Your task to perform on an android device: Show me the alarms in the clock app Image 0: 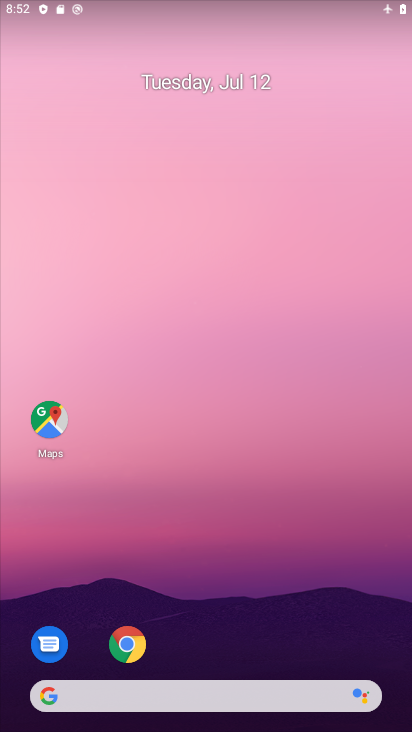
Step 0: drag from (210, 652) to (223, 334)
Your task to perform on an android device: Show me the alarms in the clock app Image 1: 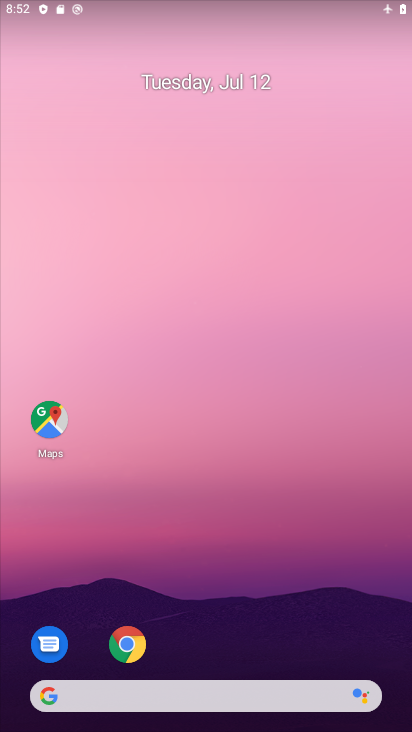
Step 1: drag from (192, 658) to (175, 210)
Your task to perform on an android device: Show me the alarms in the clock app Image 2: 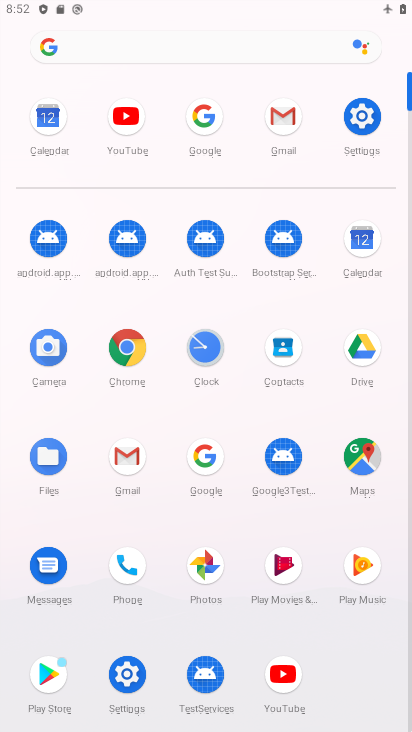
Step 2: click (208, 351)
Your task to perform on an android device: Show me the alarms in the clock app Image 3: 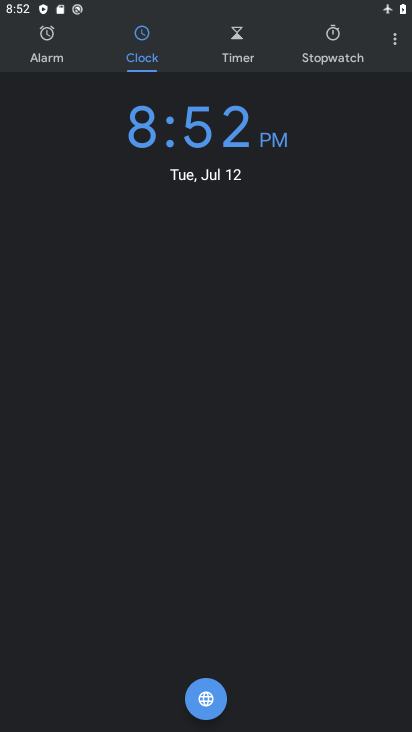
Step 3: click (57, 26)
Your task to perform on an android device: Show me the alarms in the clock app Image 4: 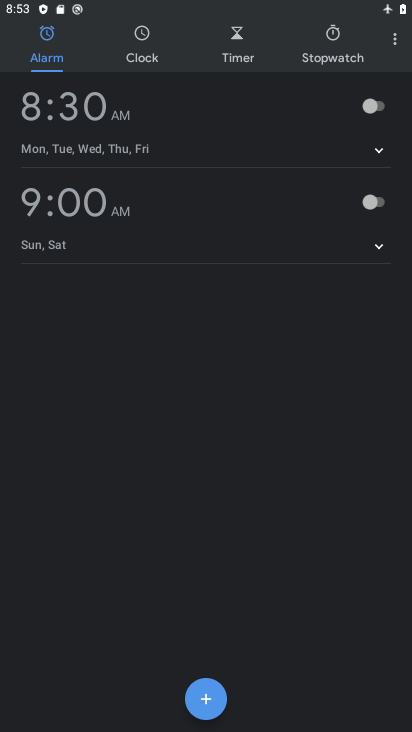
Step 4: task complete